Your task to perform on an android device: set the stopwatch Image 0: 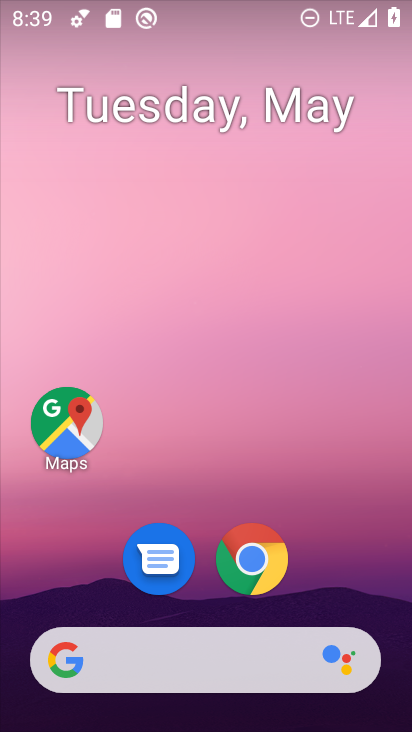
Step 0: drag from (179, 591) to (266, 45)
Your task to perform on an android device: set the stopwatch Image 1: 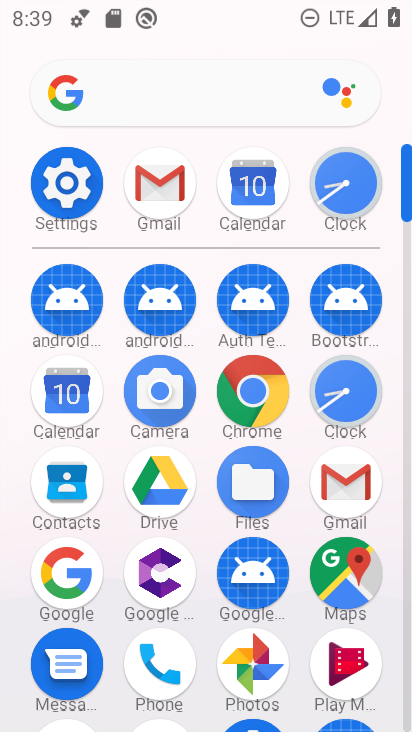
Step 1: click (341, 372)
Your task to perform on an android device: set the stopwatch Image 2: 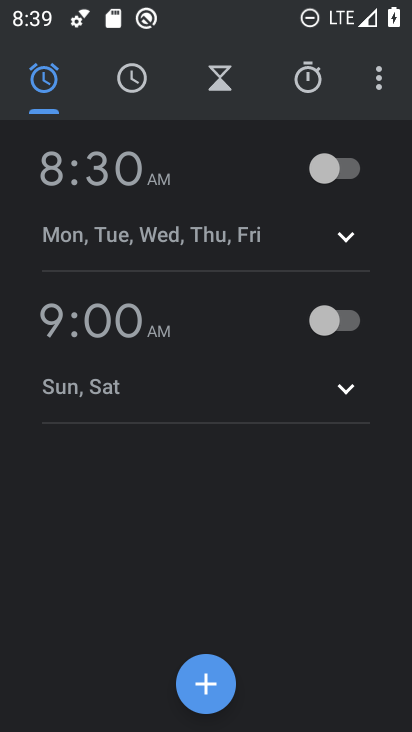
Step 2: click (304, 75)
Your task to perform on an android device: set the stopwatch Image 3: 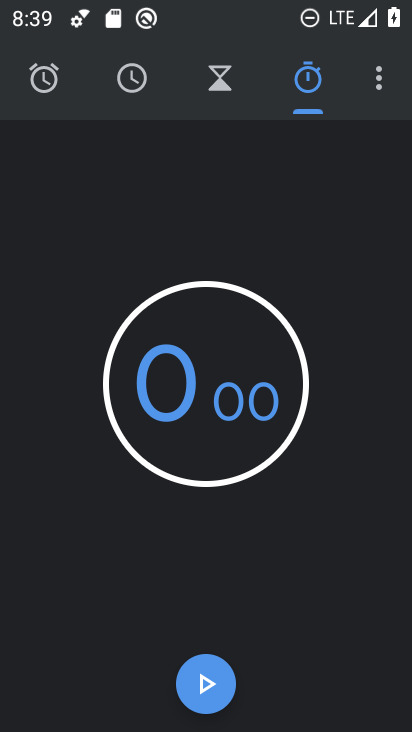
Step 3: task complete